Your task to perform on an android device: install app "Facebook Lite" Image 0: 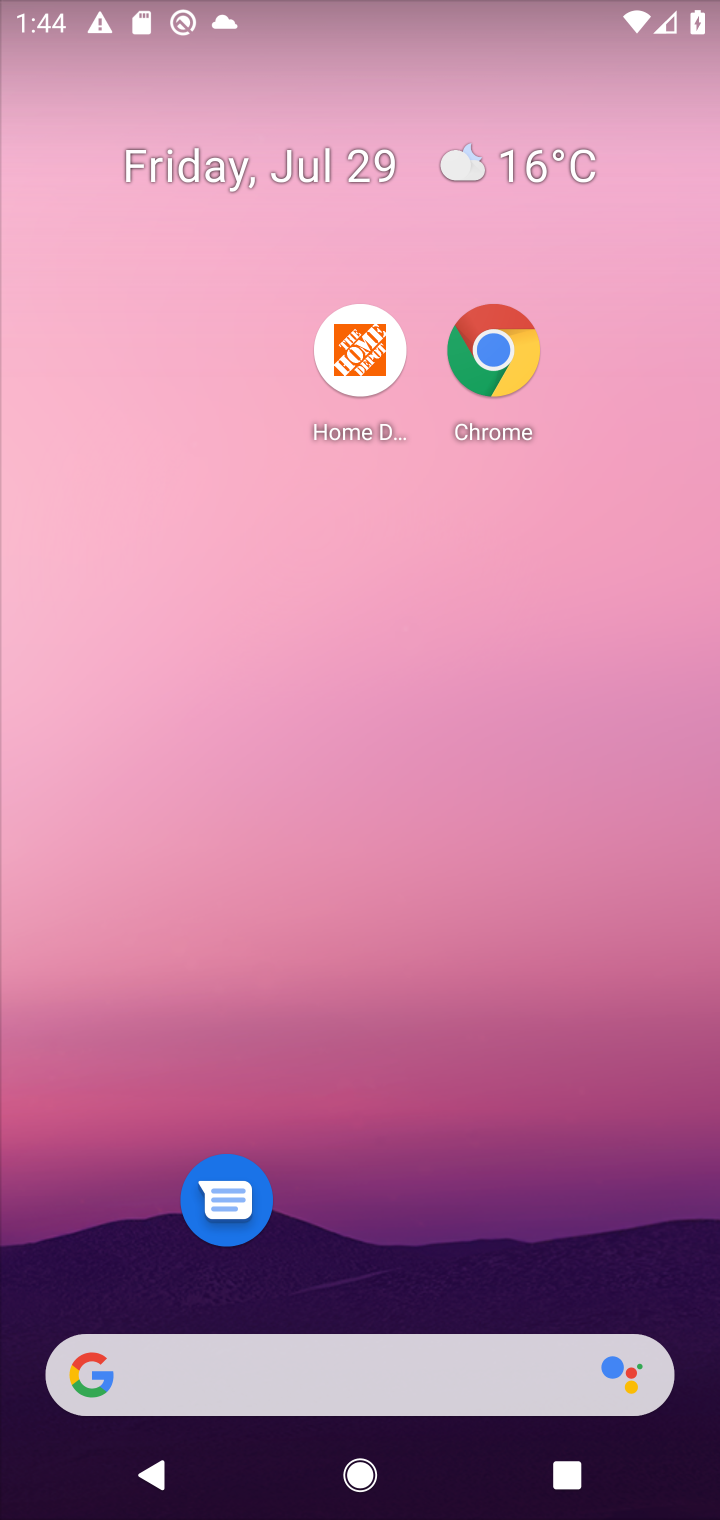
Step 0: drag from (467, 1223) to (348, 151)
Your task to perform on an android device: install app "Facebook Lite" Image 1: 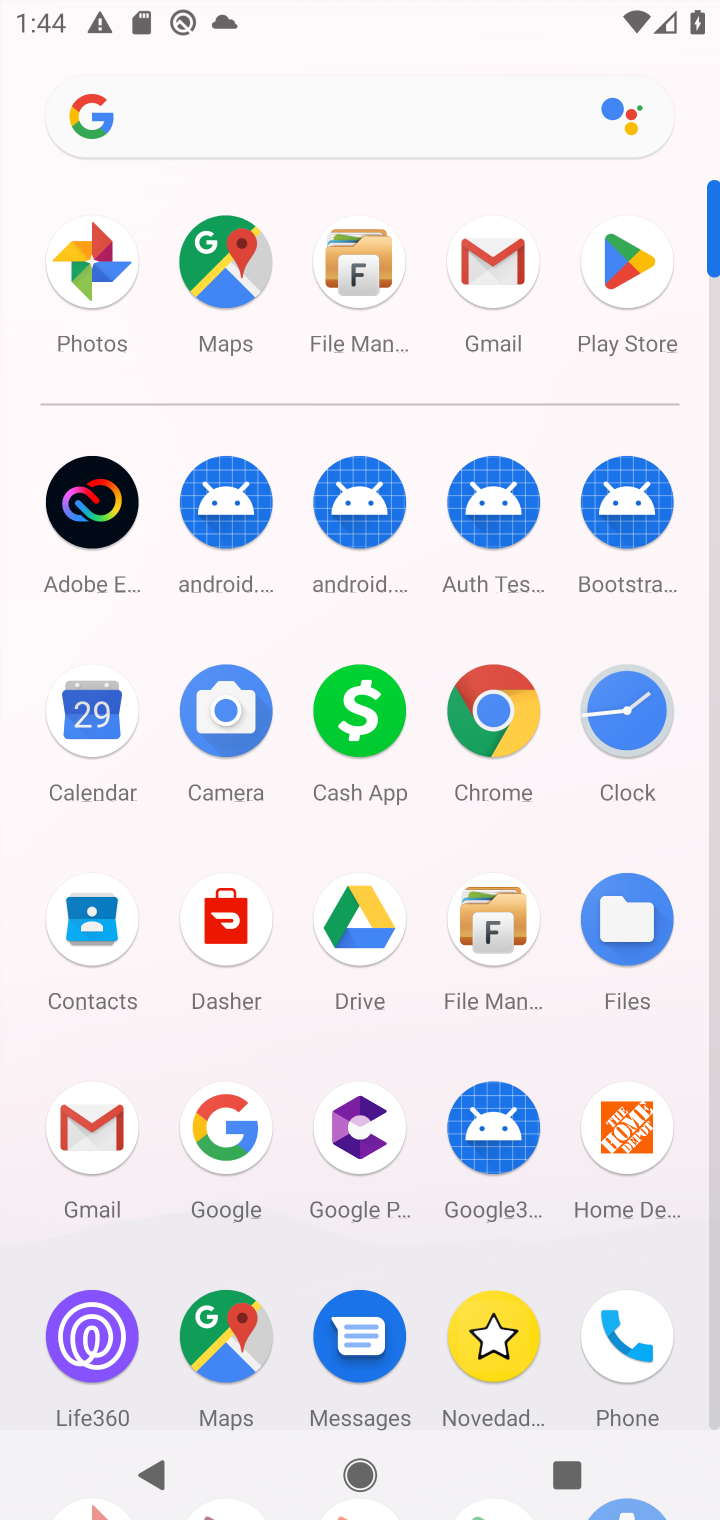
Step 1: click (614, 245)
Your task to perform on an android device: install app "Facebook Lite" Image 2: 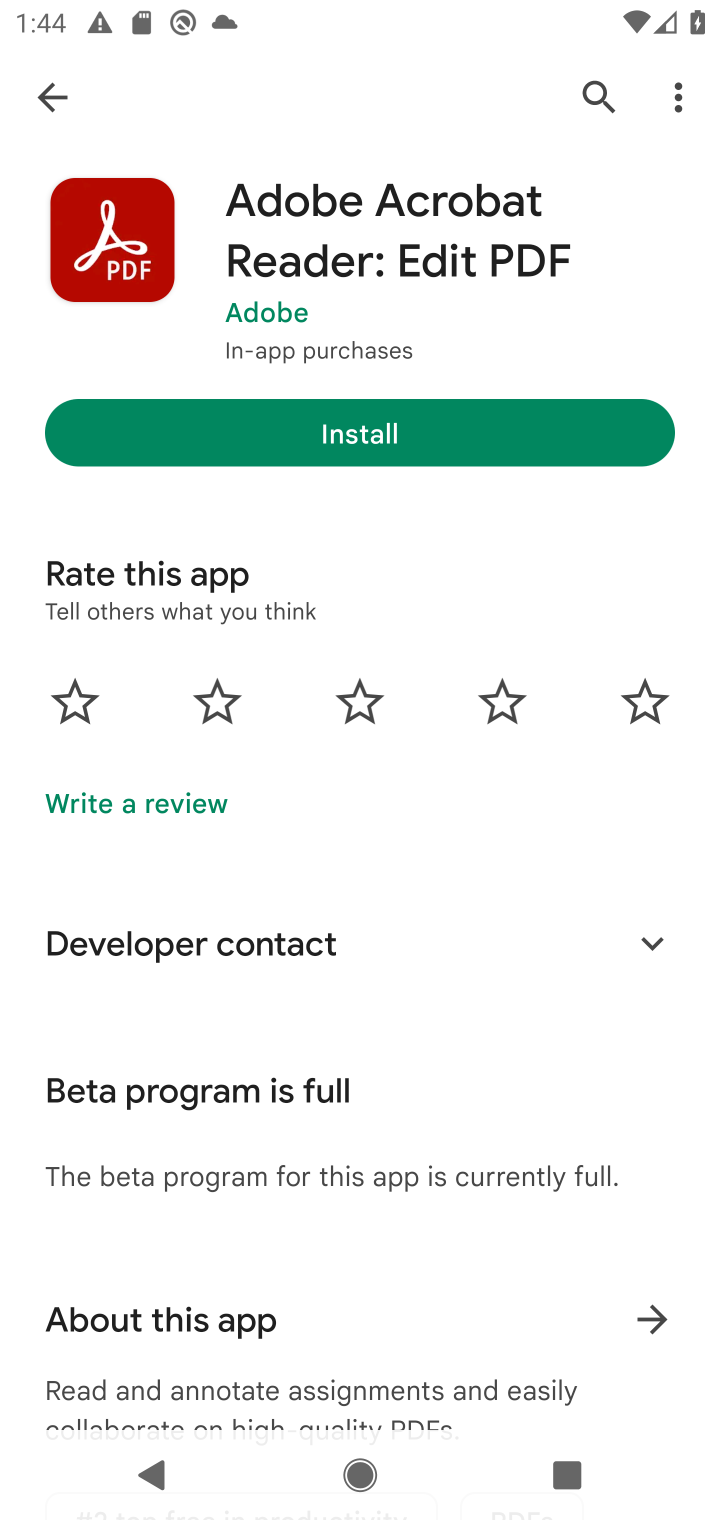
Step 2: click (584, 101)
Your task to perform on an android device: install app "Facebook Lite" Image 3: 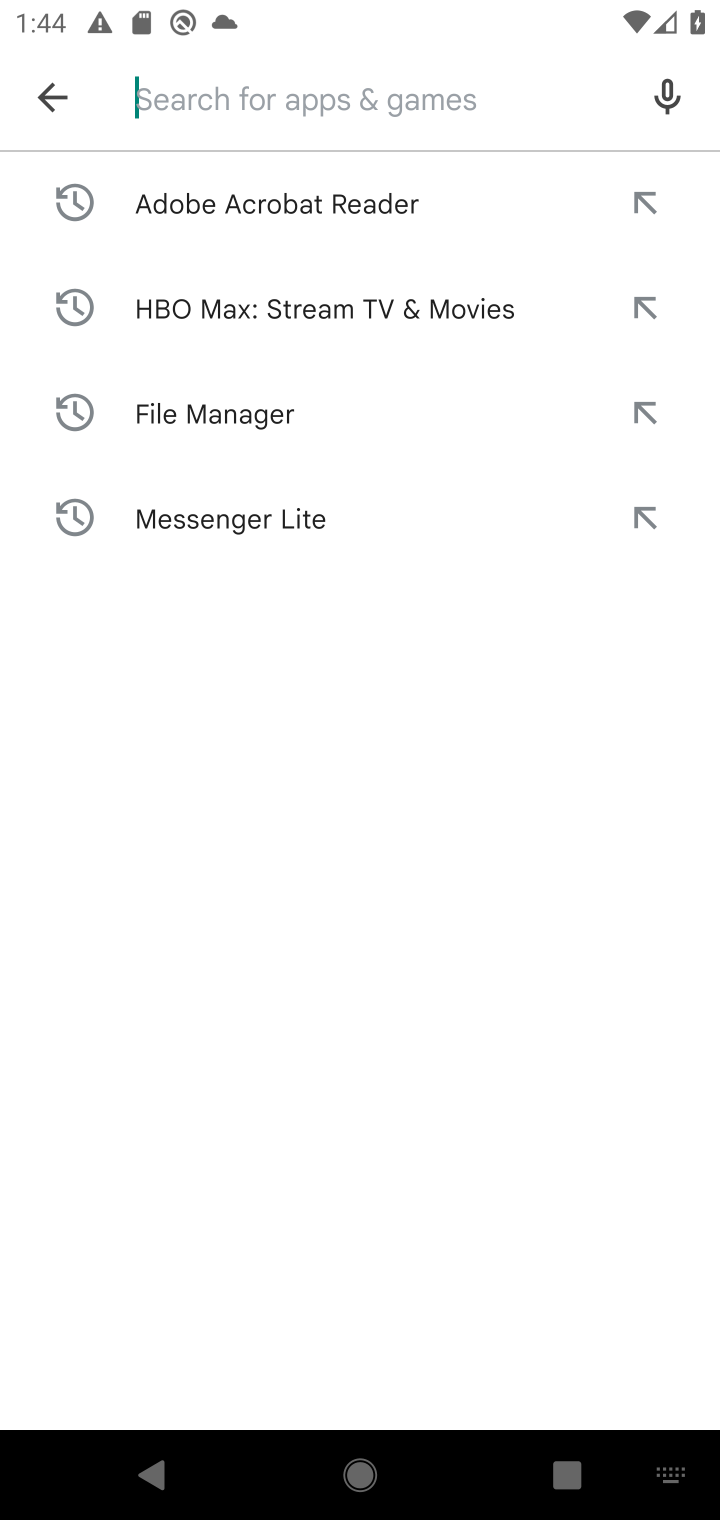
Step 3: type "Facebook Lite"
Your task to perform on an android device: install app "Facebook Lite" Image 4: 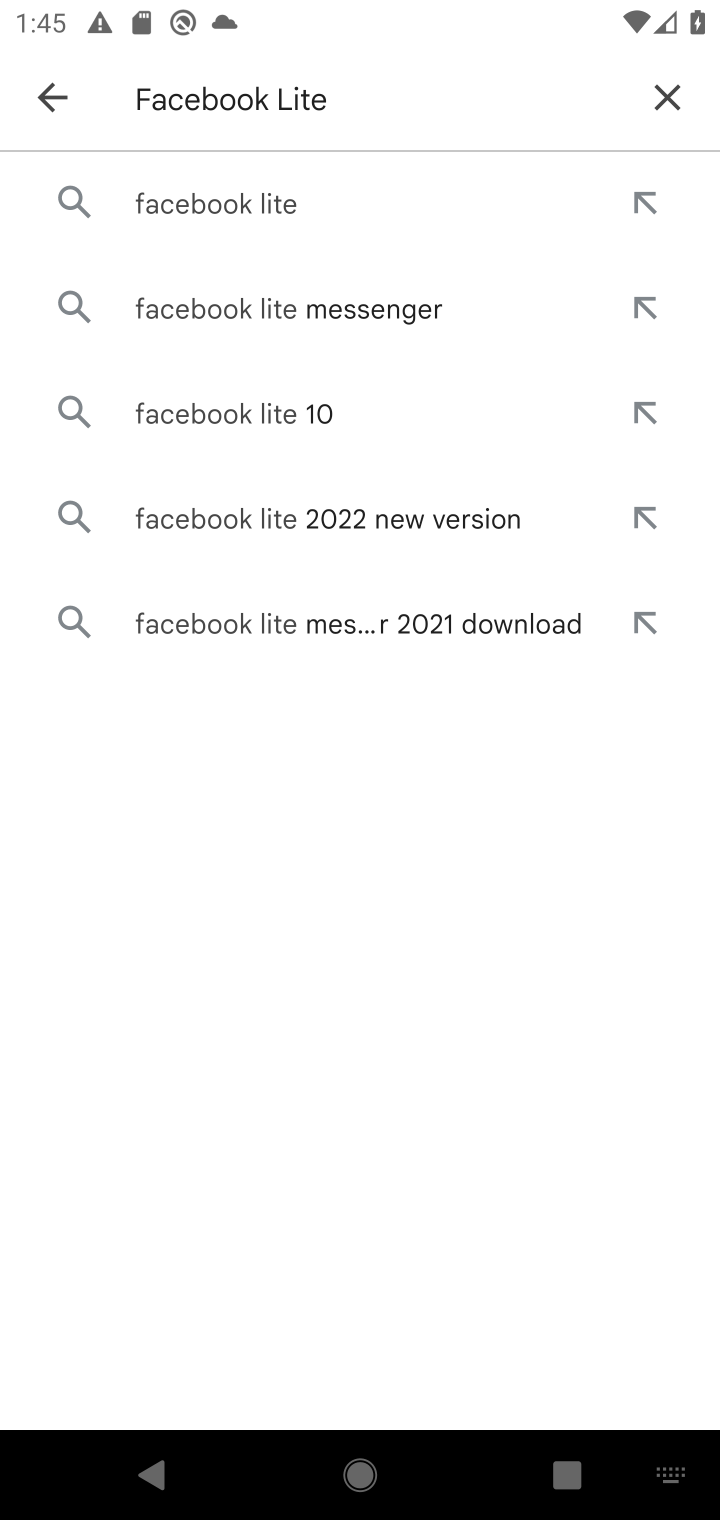
Step 4: press enter
Your task to perform on an android device: install app "Facebook Lite" Image 5: 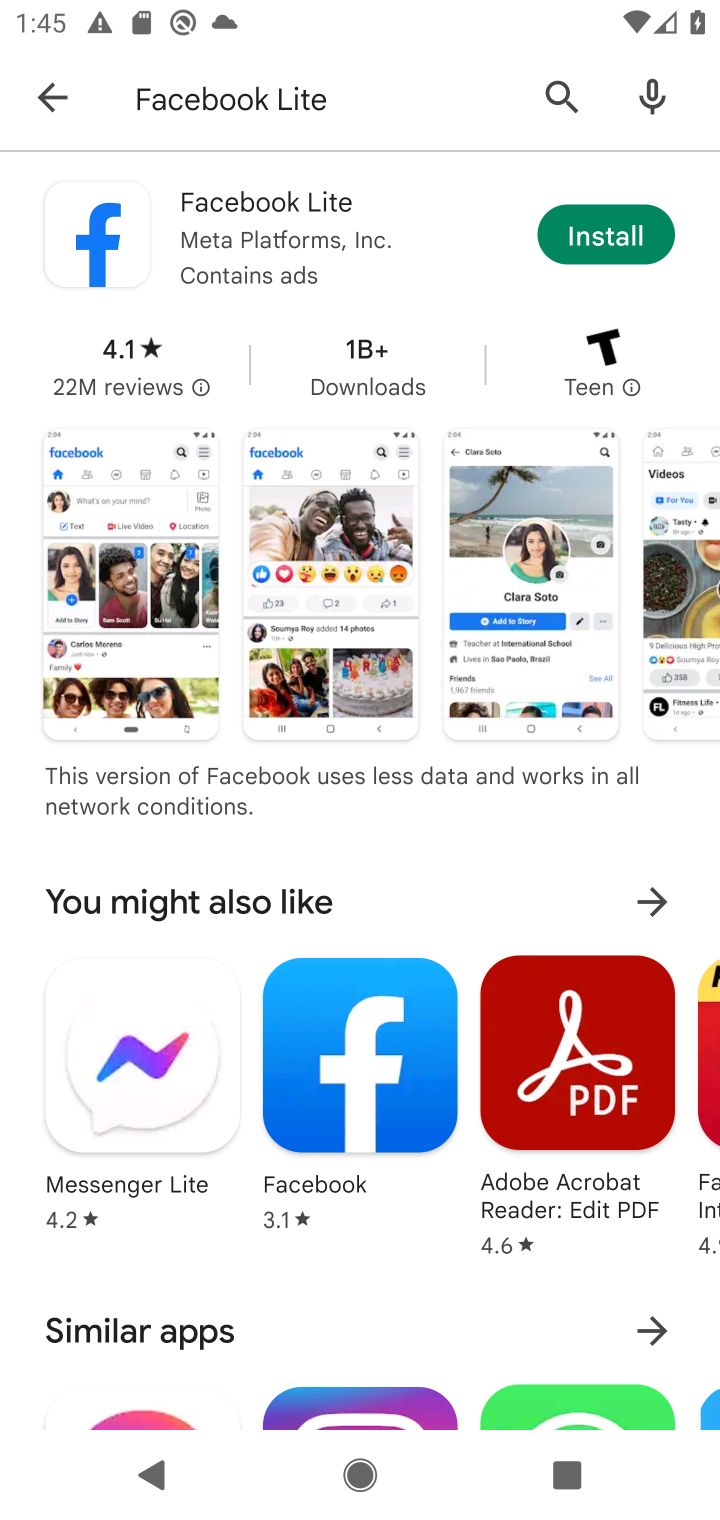
Step 5: click (635, 253)
Your task to perform on an android device: install app "Facebook Lite" Image 6: 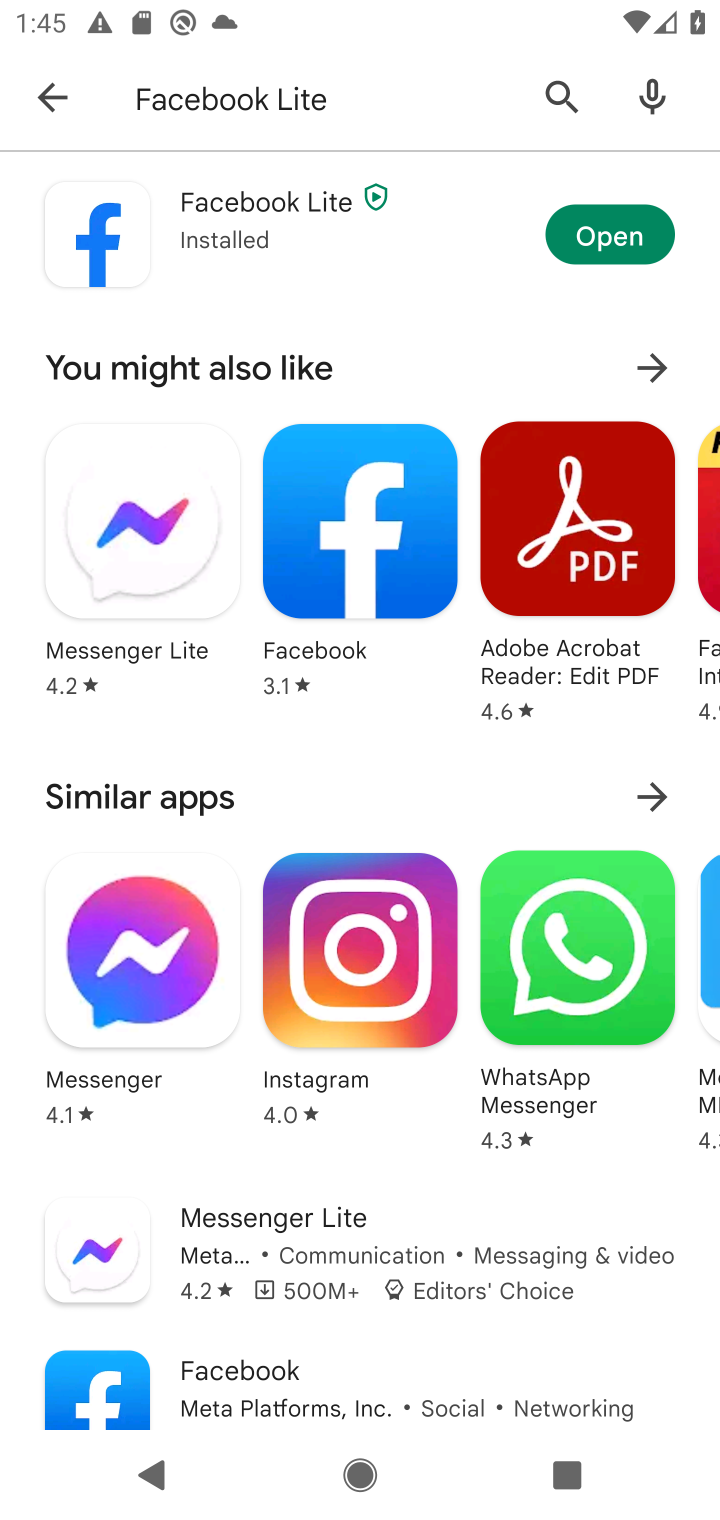
Step 6: task complete